Your task to perform on an android device: find which apps use the phone's location Image 0: 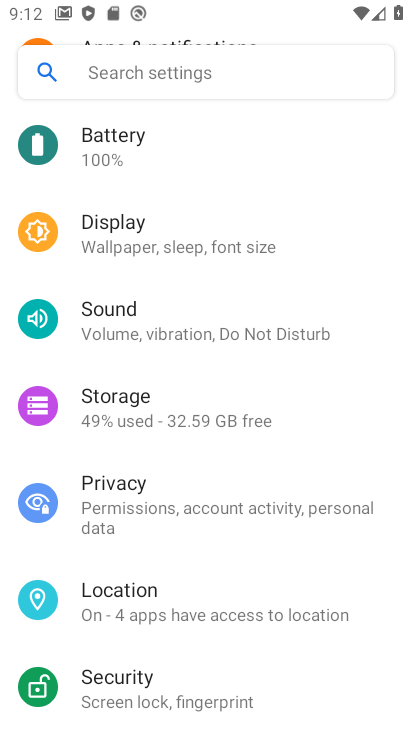
Step 0: click (146, 607)
Your task to perform on an android device: find which apps use the phone's location Image 1: 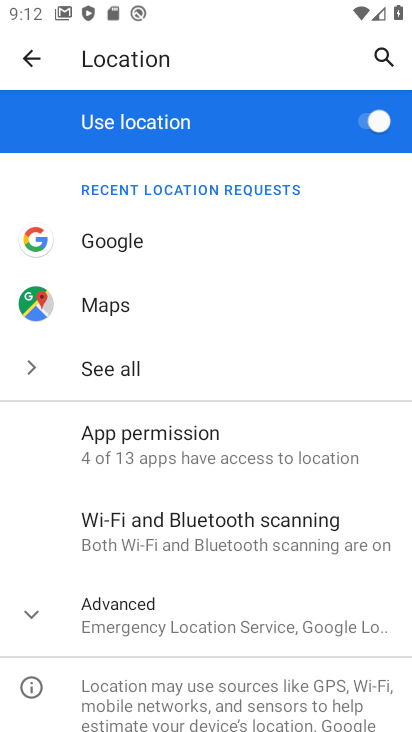
Step 1: click (168, 385)
Your task to perform on an android device: find which apps use the phone's location Image 2: 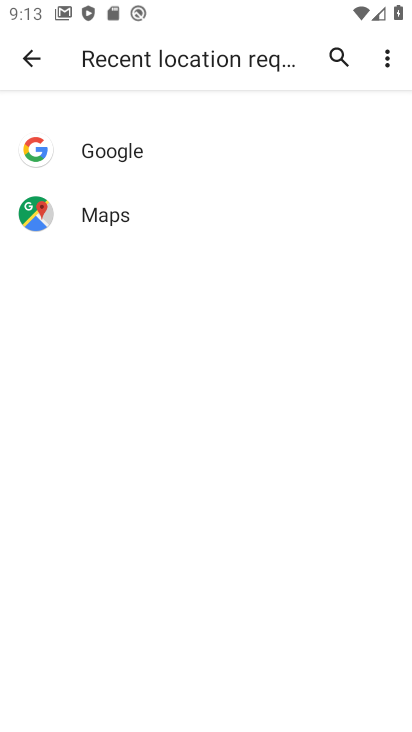
Step 2: task complete